Your task to perform on an android device: Go to display settings Image 0: 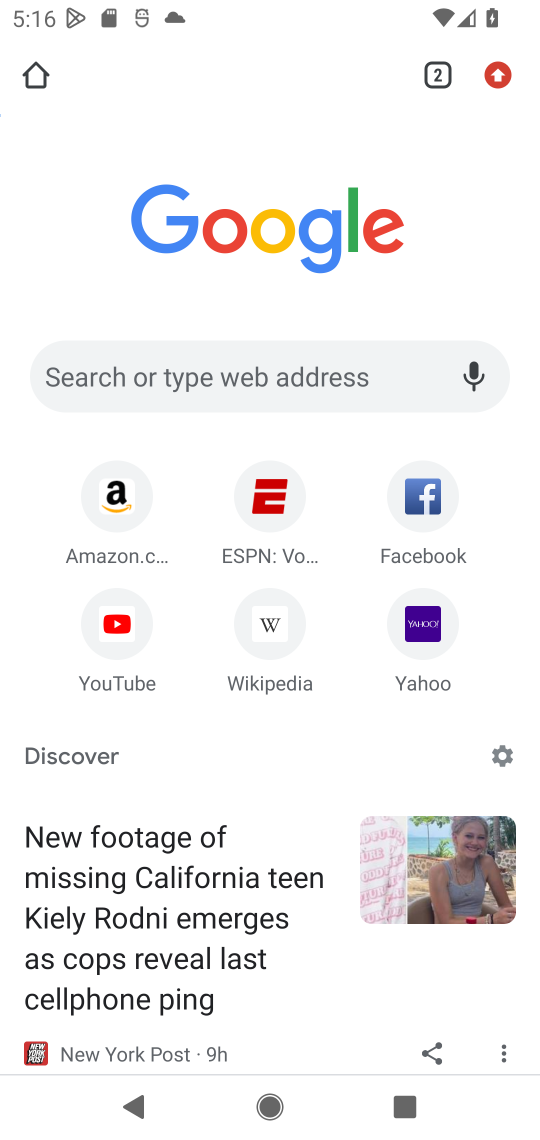
Step 0: press home button
Your task to perform on an android device: Go to display settings Image 1: 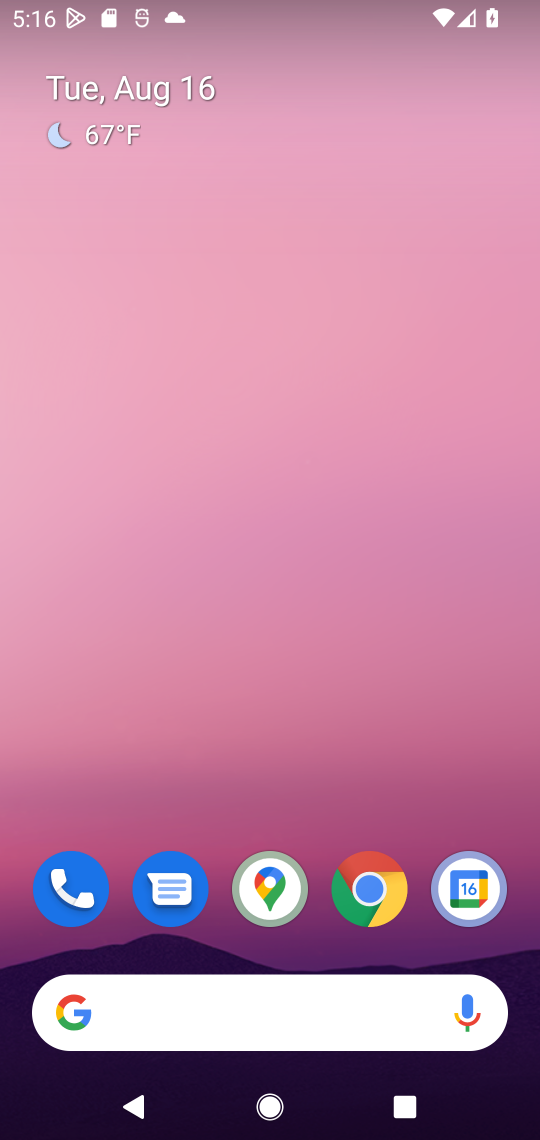
Step 1: drag from (252, 721) to (373, 265)
Your task to perform on an android device: Go to display settings Image 2: 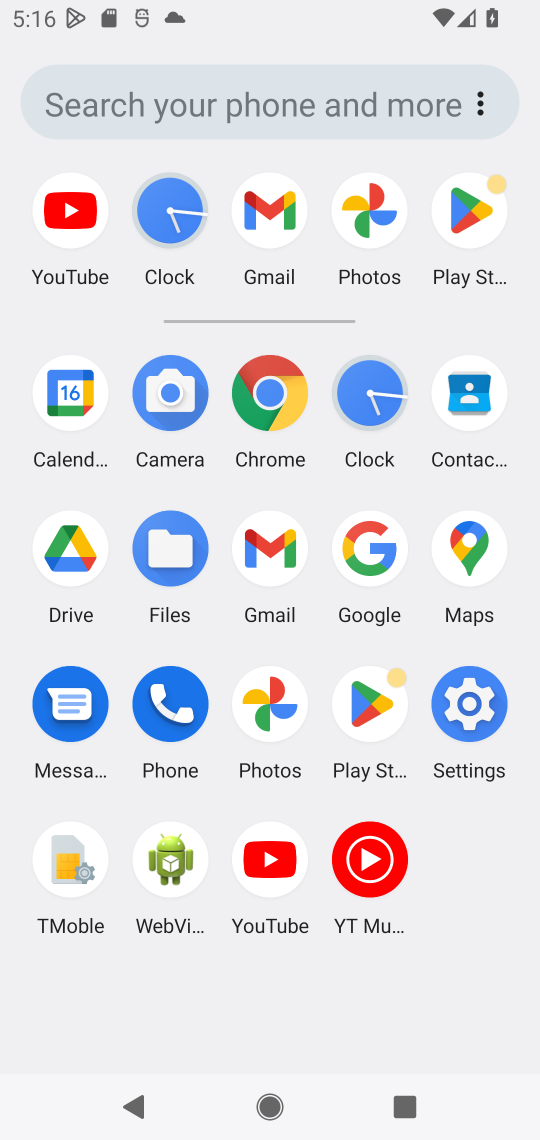
Step 2: click (474, 708)
Your task to perform on an android device: Go to display settings Image 3: 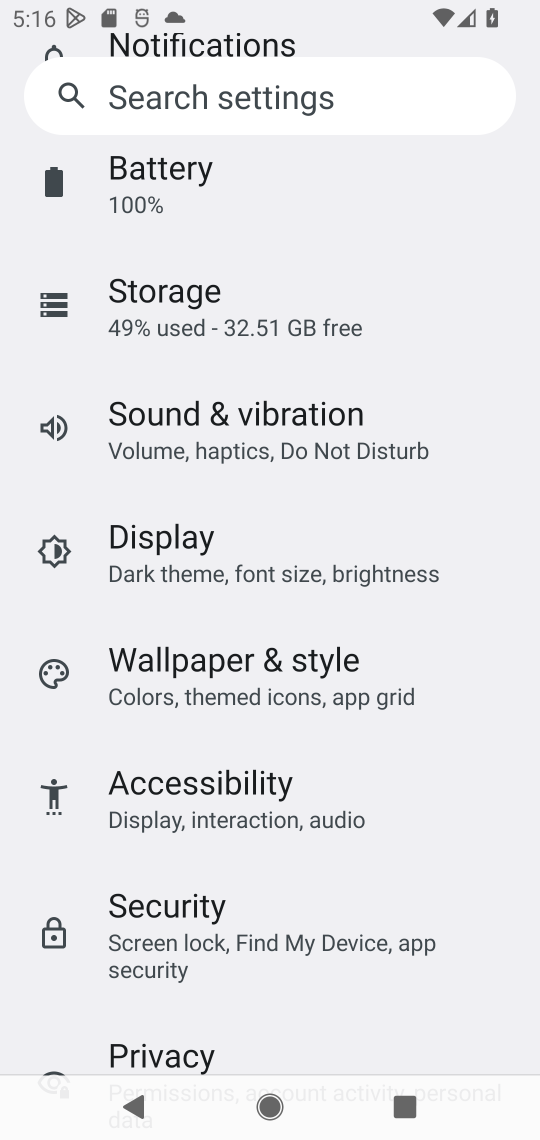
Step 3: click (178, 538)
Your task to perform on an android device: Go to display settings Image 4: 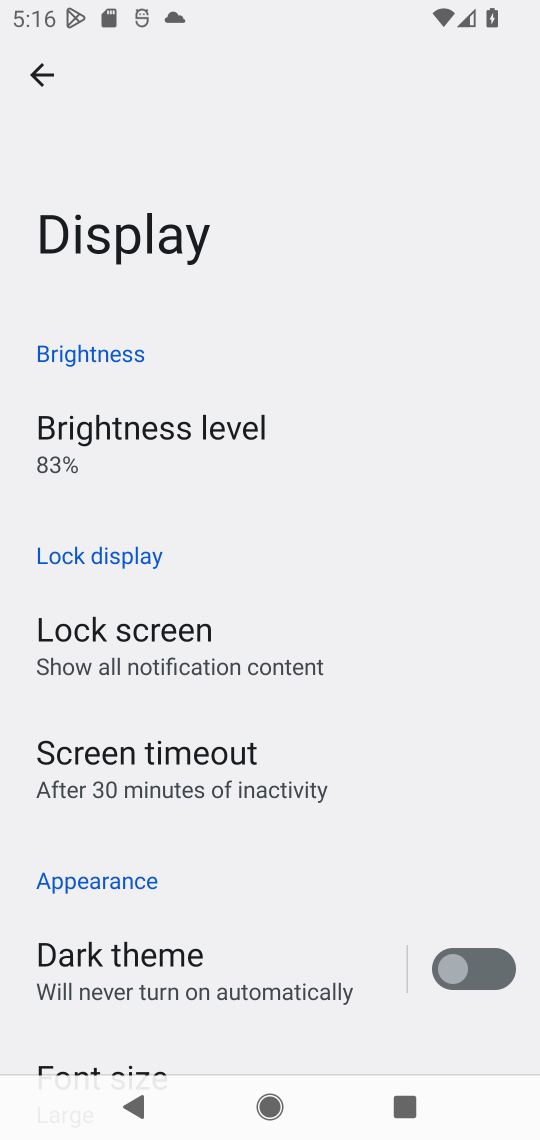
Step 4: task complete